Your task to perform on an android device: Go to wifi settings Image 0: 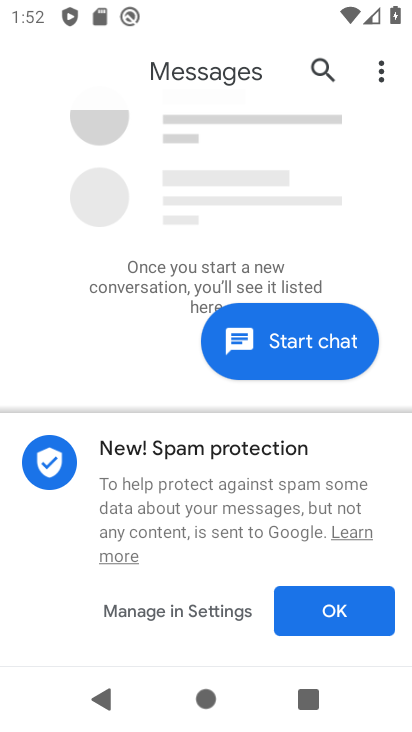
Step 0: press back button
Your task to perform on an android device: Go to wifi settings Image 1: 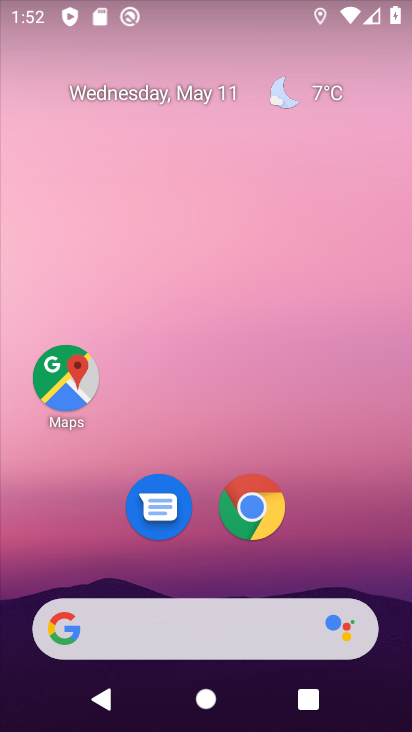
Step 1: drag from (335, 542) to (268, 8)
Your task to perform on an android device: Go to wifi settings Image 2: 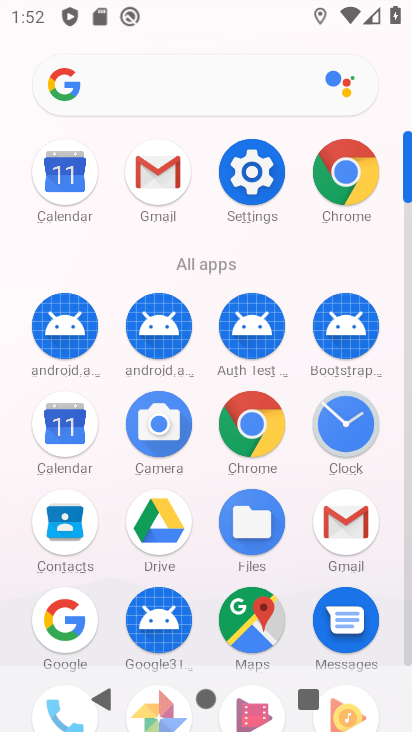
Step 2: drag from (16, 486) to (33, 204)
Your task to perform on an android device: Go to wifi settings Image 3: 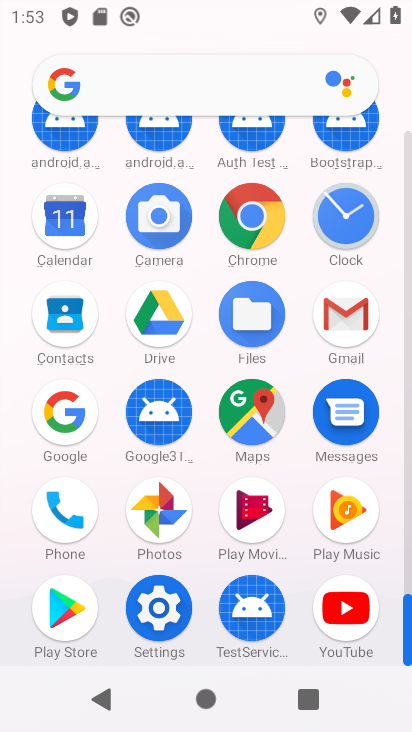
Step 3: click (159, 608)
Your task to perform on an android device: Go to wifi settings Image 4: 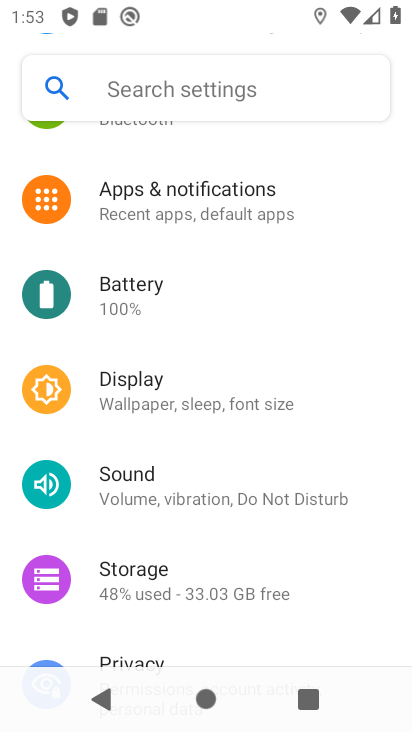
Step 4: drag from (286, 216) to (294, 601)
Your task to perform on an android device: Go to wifi settings Image 5: 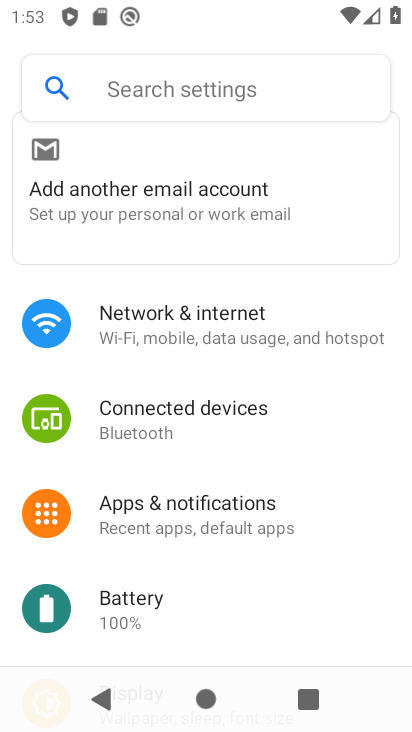
Step 5: drag from (299, 521) to (299, 216)
Your task to perform on an android device: Go to wifi settings Image 6: 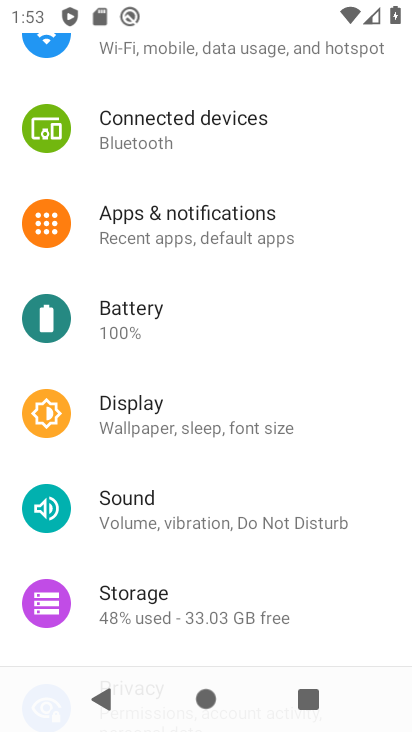
Step 6: drag from (232, 498) to (223, 179)
Your task to perform on an android device: Go to wifi settings Image 7: 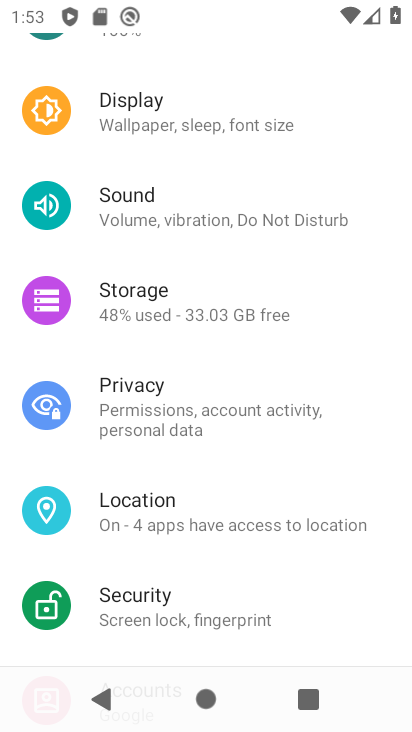
Step 7: drag from (229, 518) to (234, 86)
Your task to perform on an android device: Go to wifi settings Image 8: 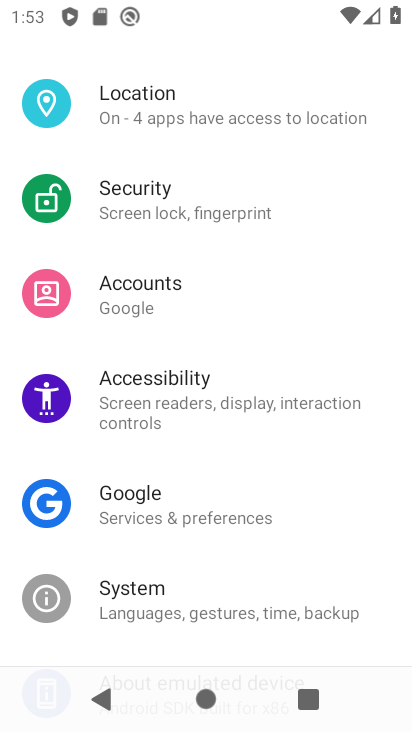
Step 8: drag from (221, 517) to (236, 123)
Your task to perform on an android device: Go to wifi settings Image 9: 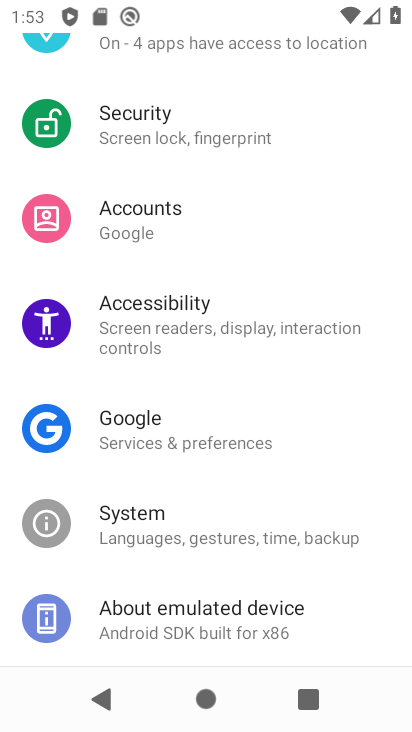
Step 9: drag from (246, 167) to (240, 638)
Your task to perform on an android device: Go to wifi settings Image 10: 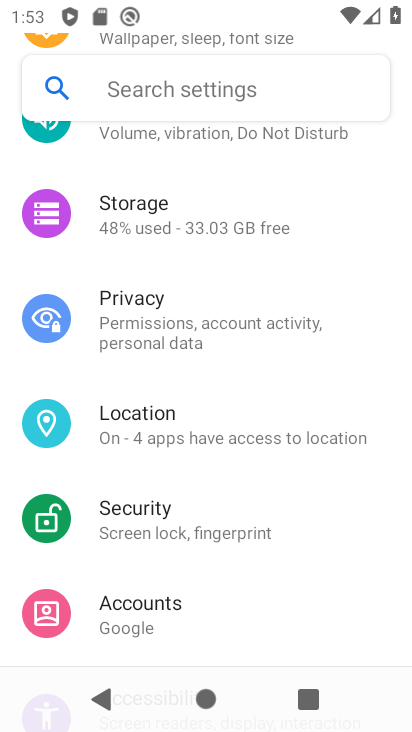
Step 10: drag from (311, 227) to (307, 611)
Your task to perform on an android device: Go to wifi settings Image 11: 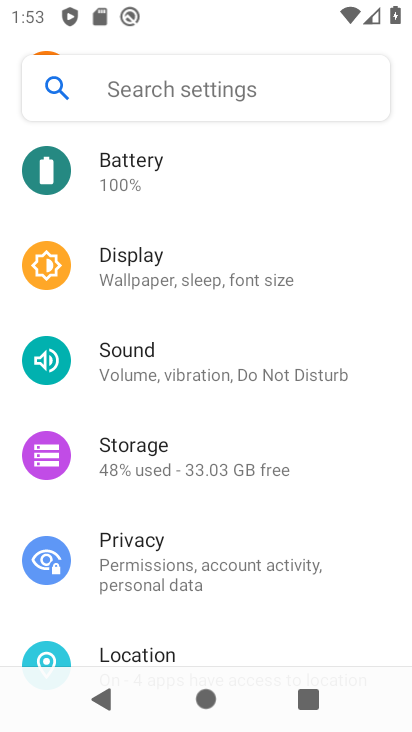
Step 11: drag from (270, 198) to (267, 534)
Your task to perform on an android device: Go to wifi settings Image 12: 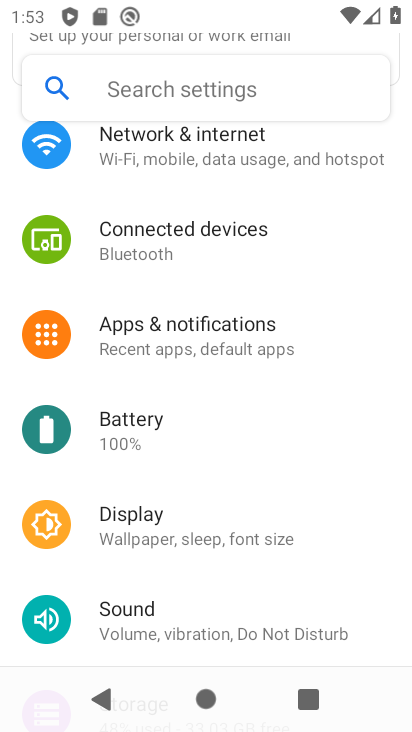
Step 12: drag from (239, 219) to (225, 499)
Your task to perform on an android device: Go to wifi settings Image 13: 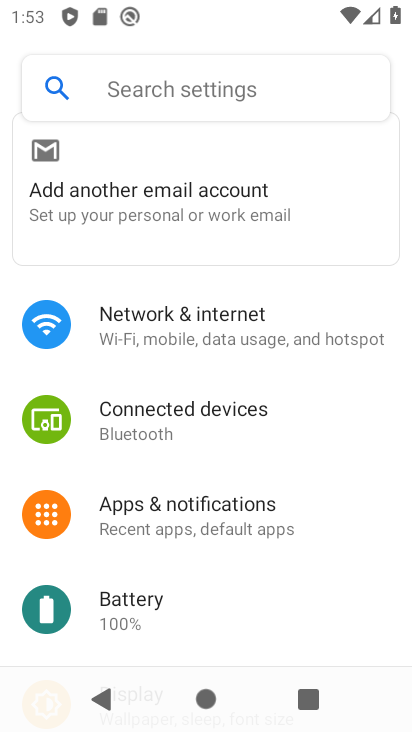
Step 13: click (156, 345)
Your task to perform on an android device: Go to wifi settings Image 14: 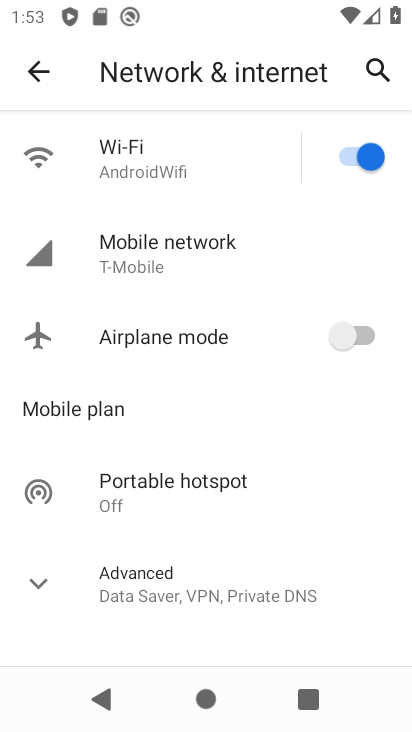
Step 14: click (177, 160)
Your task to perform on an android device: Go to wifi settings Image 15: 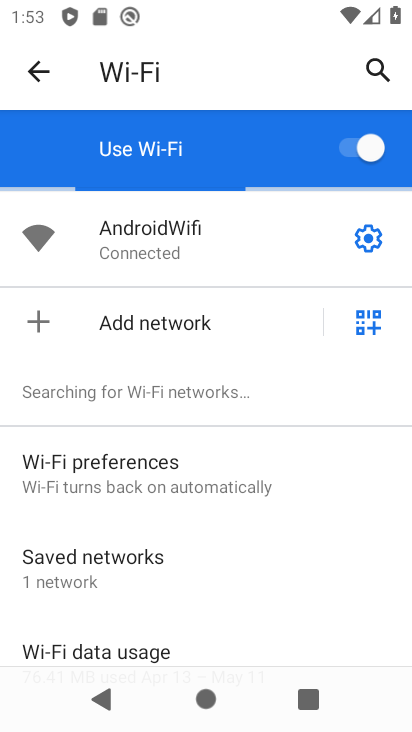
Step 15: task complete